Your task to perform on an android device: open device folders in google photos Image 0: 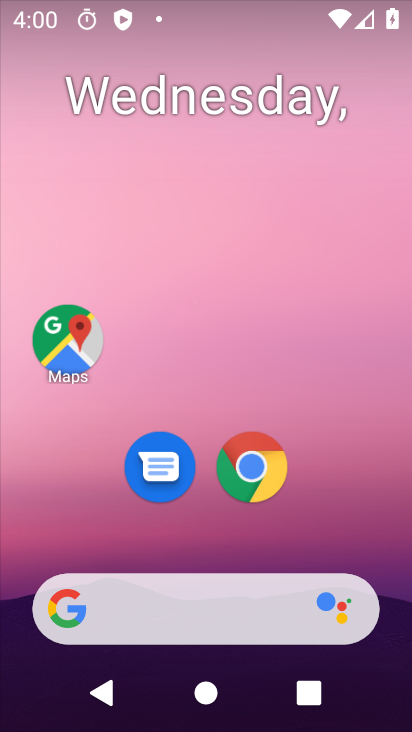
Step 0: drag from (327, 308) to (268, 4)
Your task to perform on an android device: open device folders in google photos Image 1: 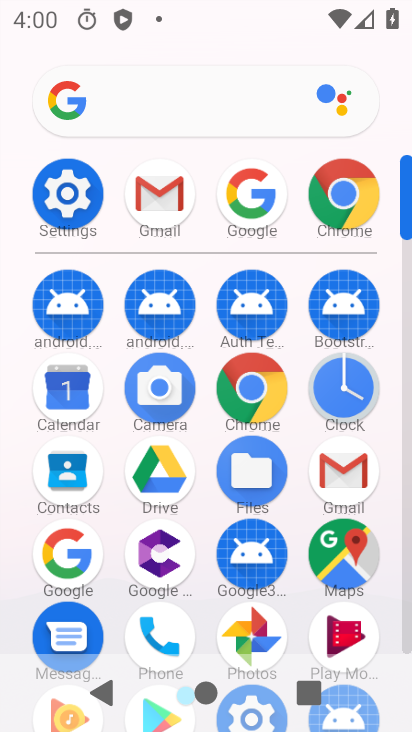
Step 1: click (255, 625)
Your task to perform on an android device: open device folders in google photos Image 2: 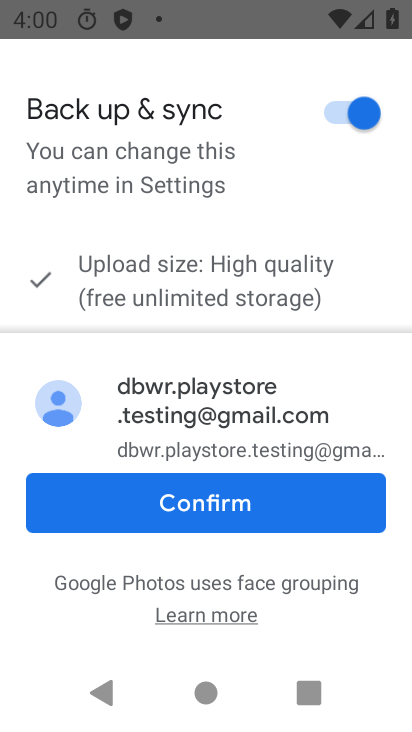
Step 2: click (237, 503)
Your task to perform on an android device: open device folders in google photos Image 3: 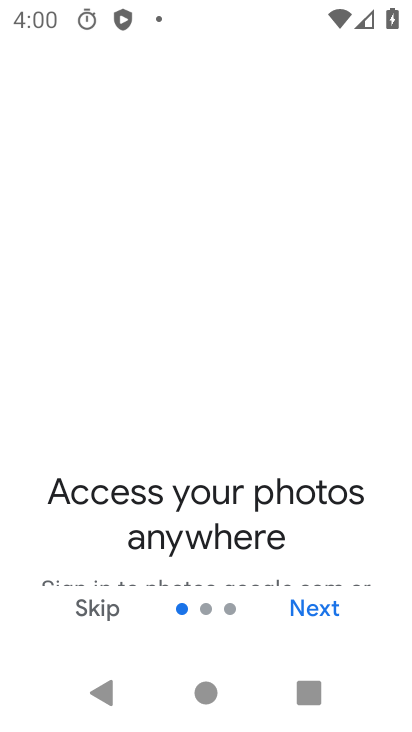
Step 3: click (309, 603)
Your task to perform on an android device: open device folders in google photos Image 4: 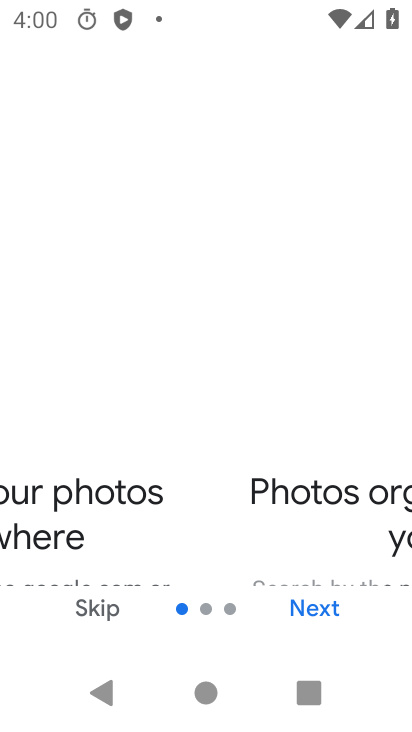
Step 4: click (308, 598)
Your task to perform on an android device: open device folders in google photos Image 5: 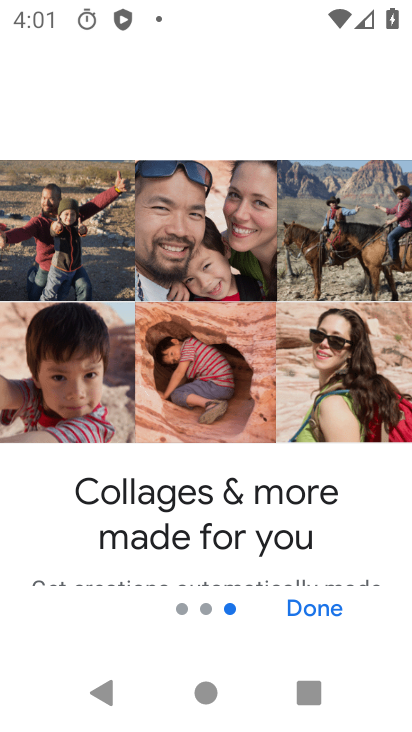
Step 5: click (308, 606)
Your task to perform on an android device: open device folders in google photos Image 6: 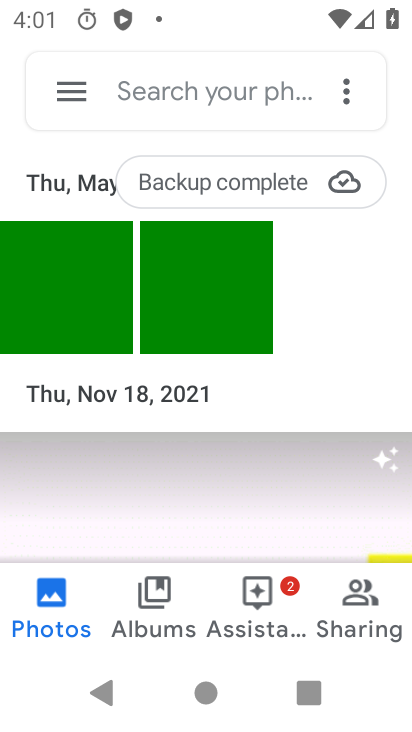
Step 6: click (66, 88)
Your task to perform on an android device: open device folders in google photos Image 7: 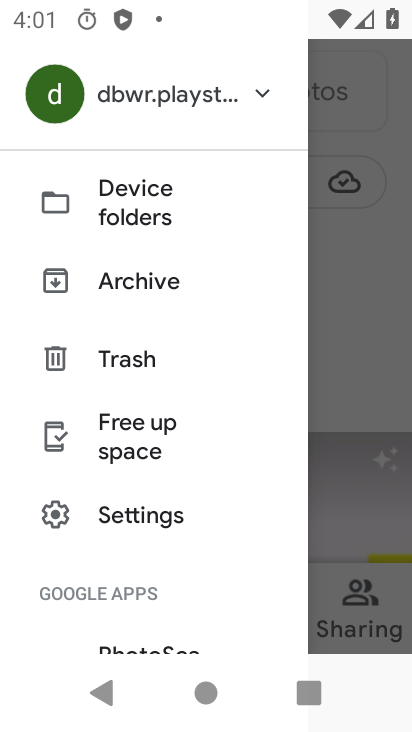
Step 7: click (155, 202)
Your task to perform on an android device: open device folders in google photos Image 8: 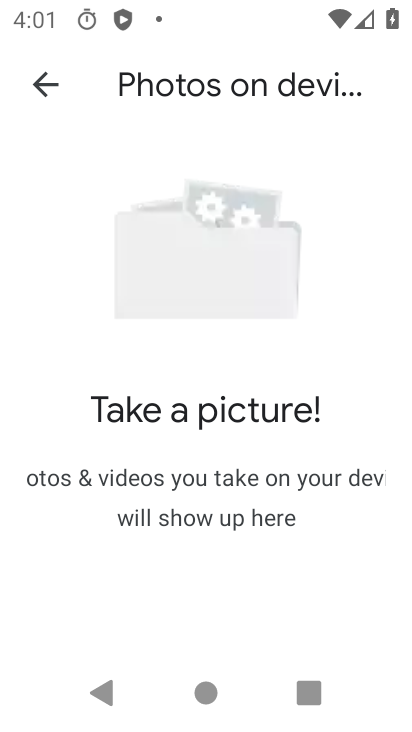
Step 8: task complete